Your task to perform on an android device: Clear the cart on amazon. Image 0: 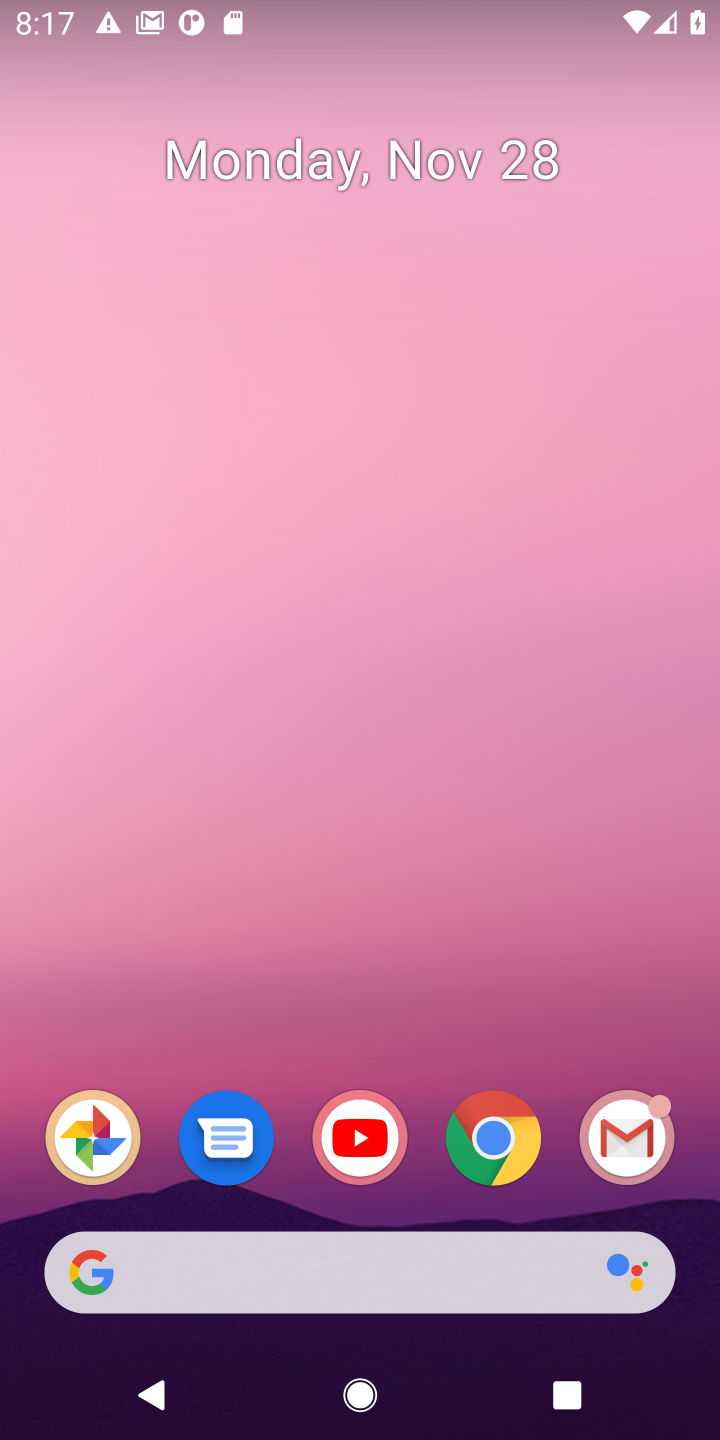
Step 0: click (508, 1150)
Your task to perform on an android device: Clear the cart on amazon. Image 1: 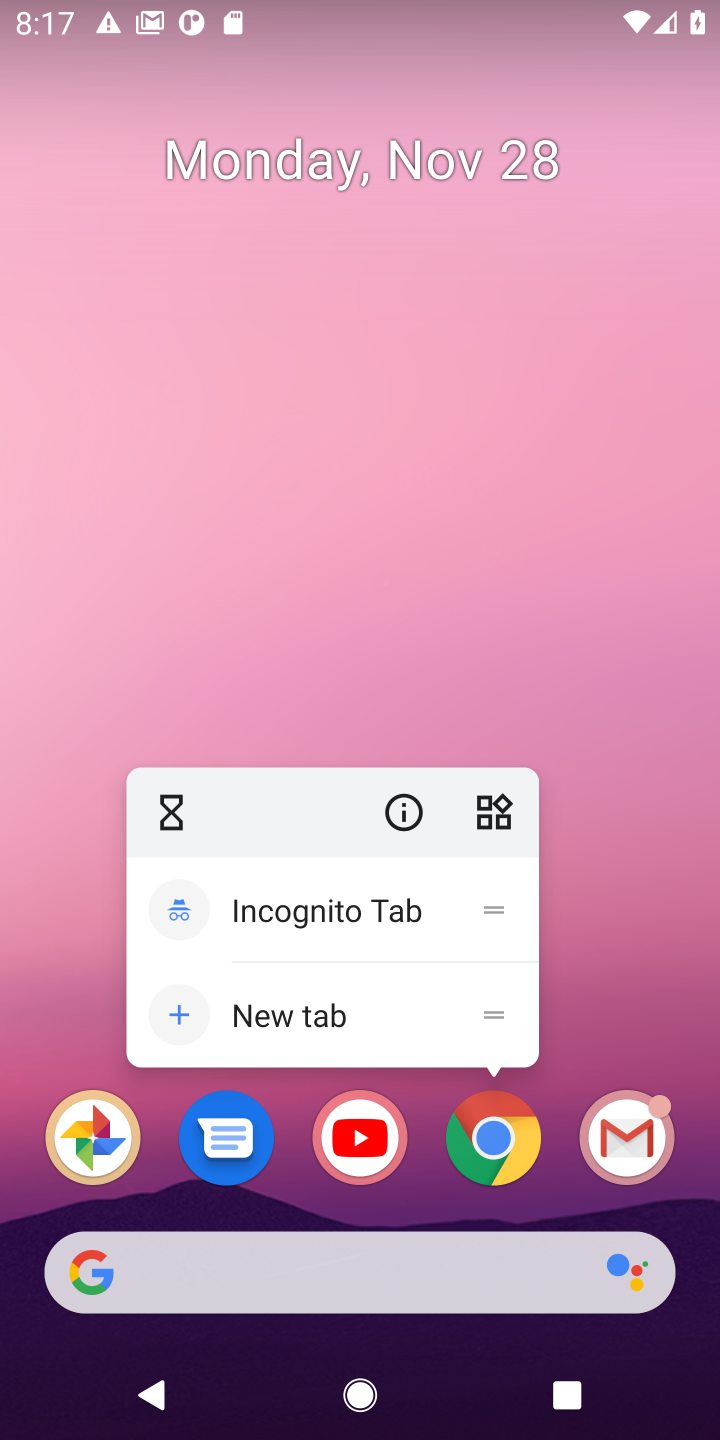
Step 1: click (508, 1150)
Your task to perform on an android device: Clear the cart on amazon. Image 2: 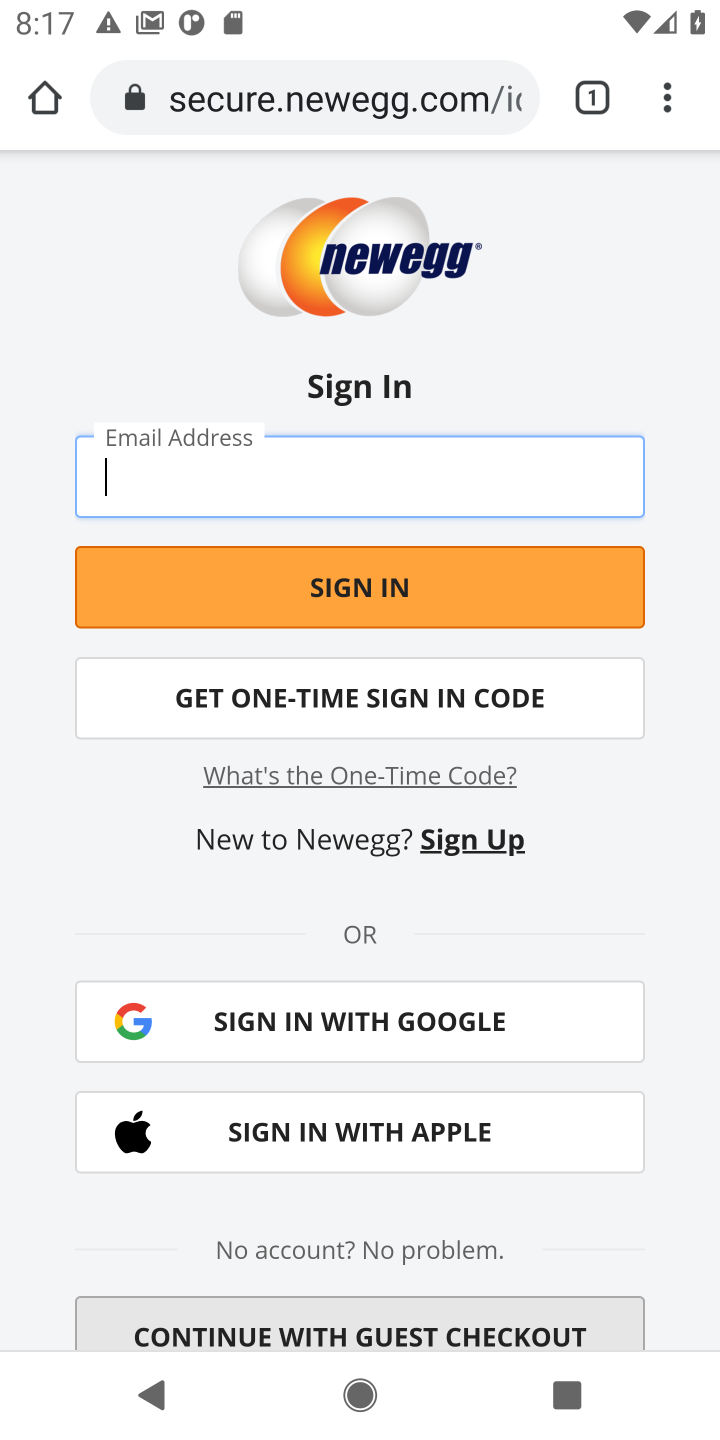
Step 2: click (340, 107)
Your task to perform on an android device: Clear the cart on amazon. Image 3: 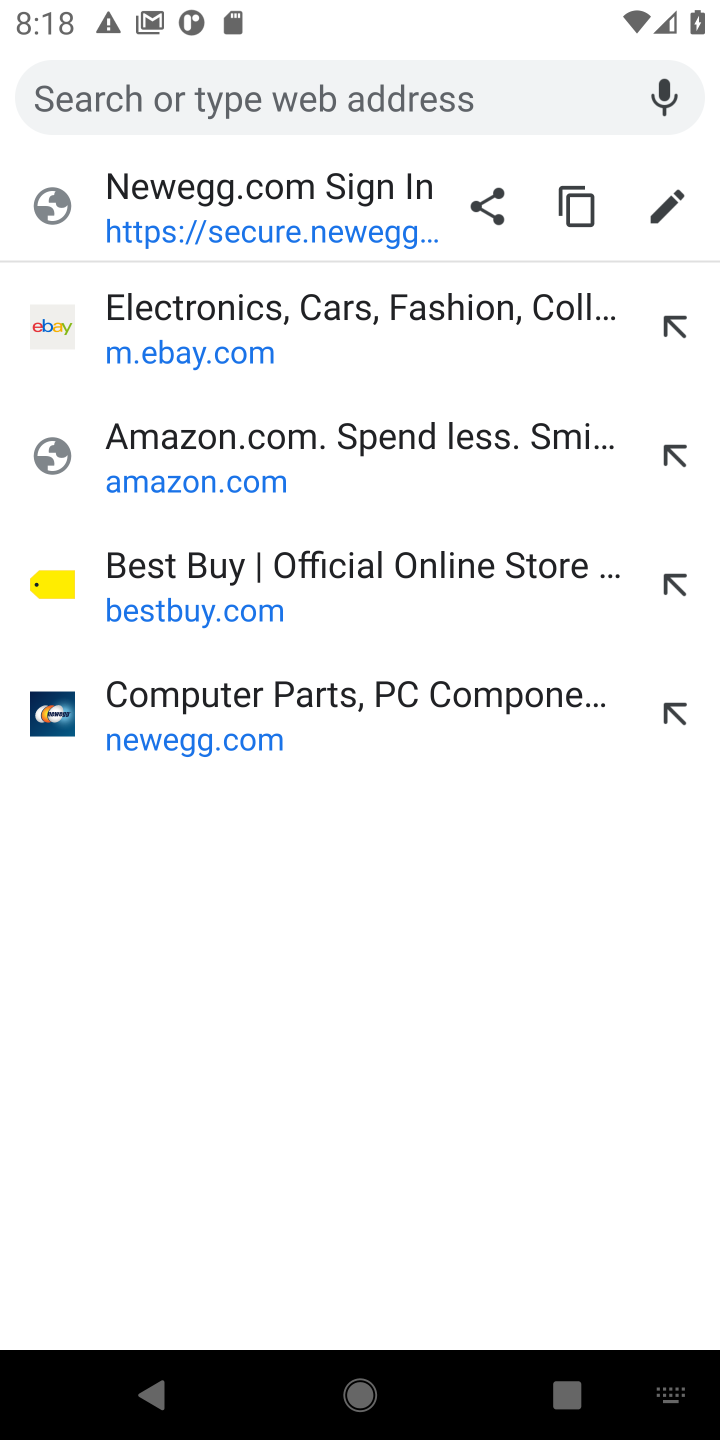
Step 3: click (169, 458)
Your task to perform on an android device: Clear the cart on amazon. Image 4: 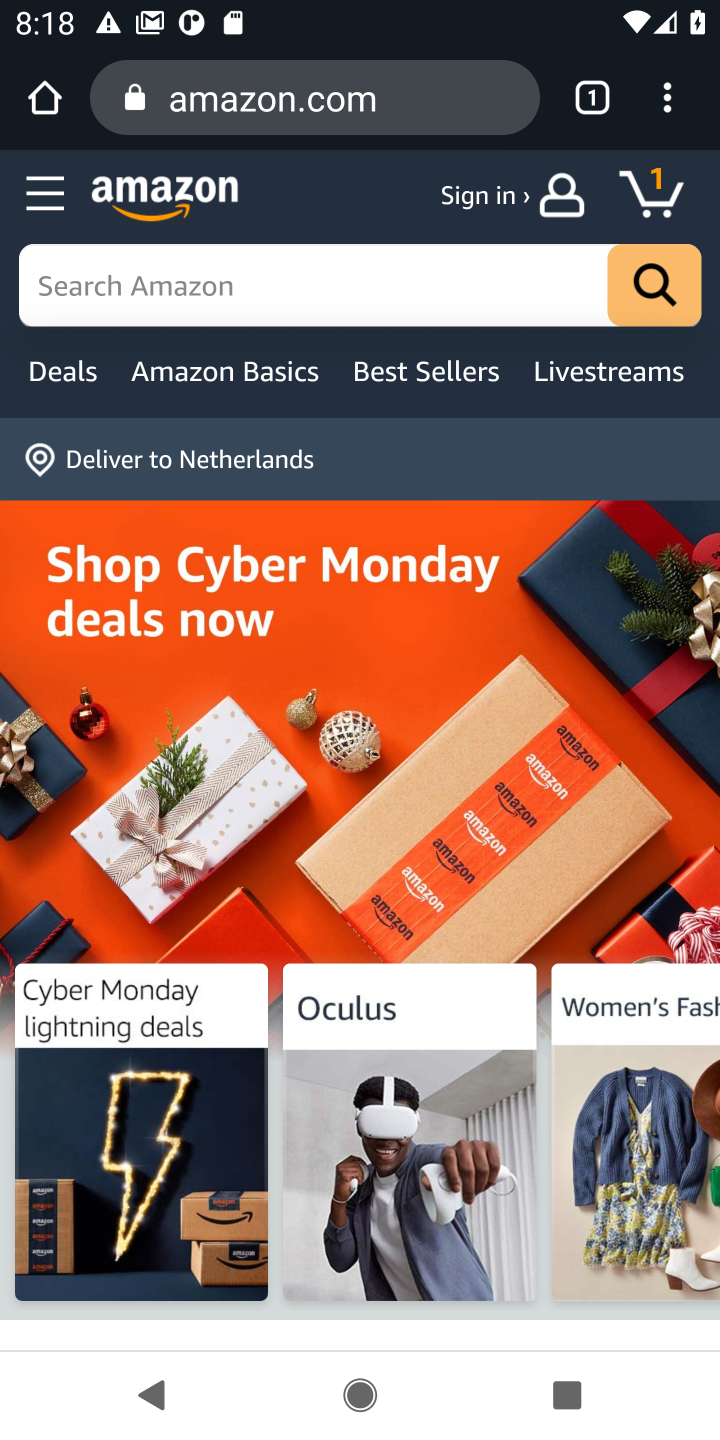
Step 4: click (652, 202)
Your task to perform on an android device: Clear the cart on amazon. Image 5: 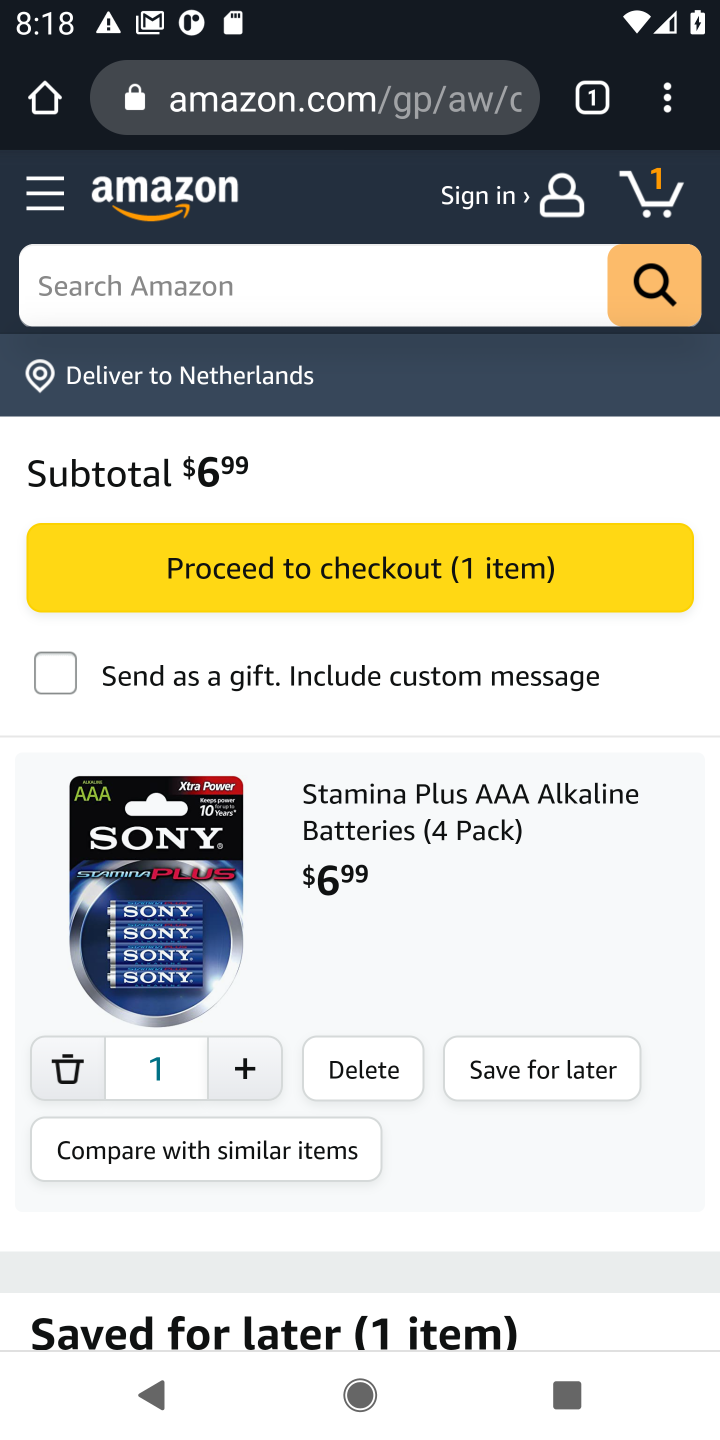
Step 5: click (351, 1077)
Your task to perform on an android device: Clear the cart on amazon. Image 6: 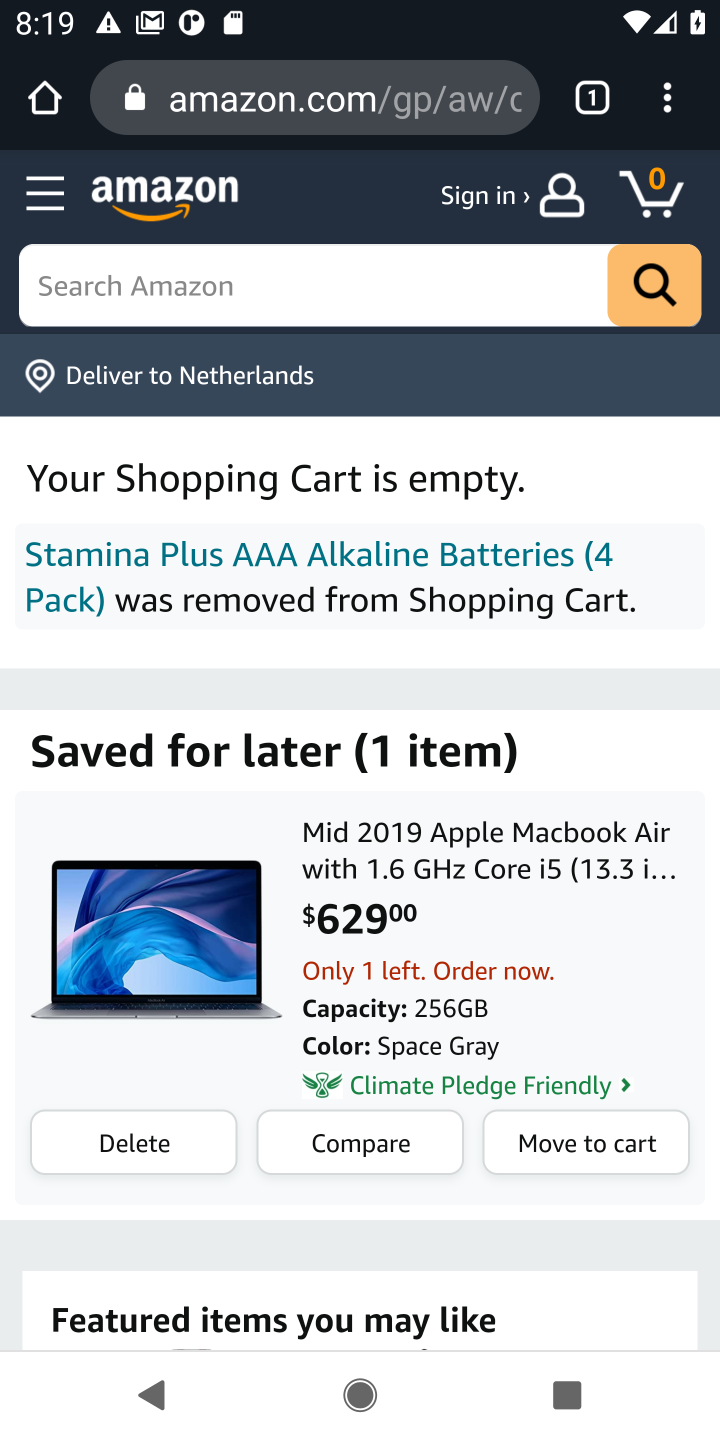
Step 6: task complete